Your task to perform on an android device: open app "VLC for Android" (install if not already installed) and enter user name: "Yves@outlook.com" and password: "internally" Image 0: 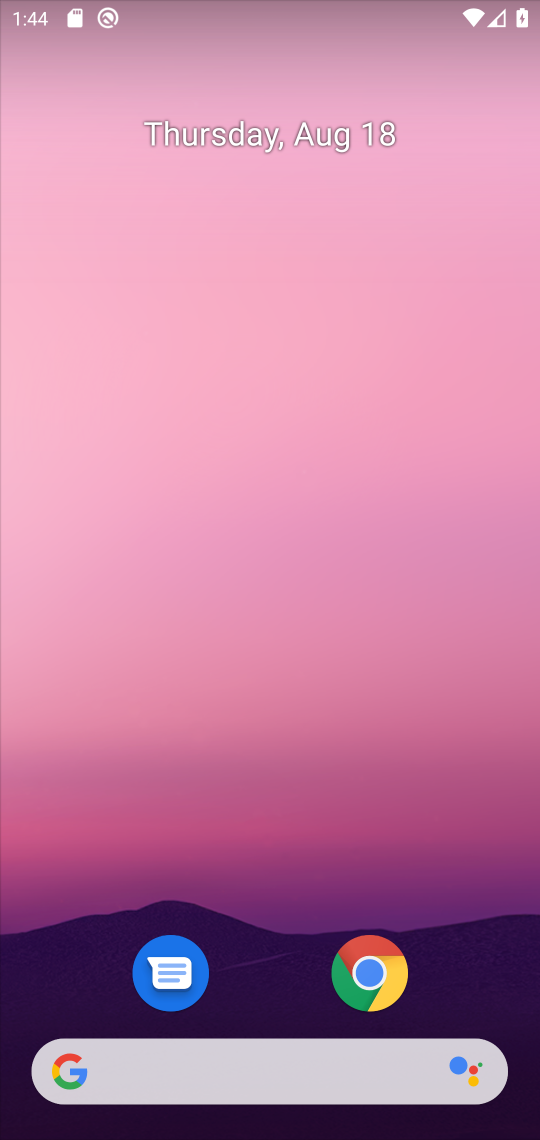
Step 0: click (226, 1083)
Your task to perform on an android device: open app "VLC for Android" (install if not already installed) and enter user name: "Yves@outlook.com" and password: "internally" Image 1: 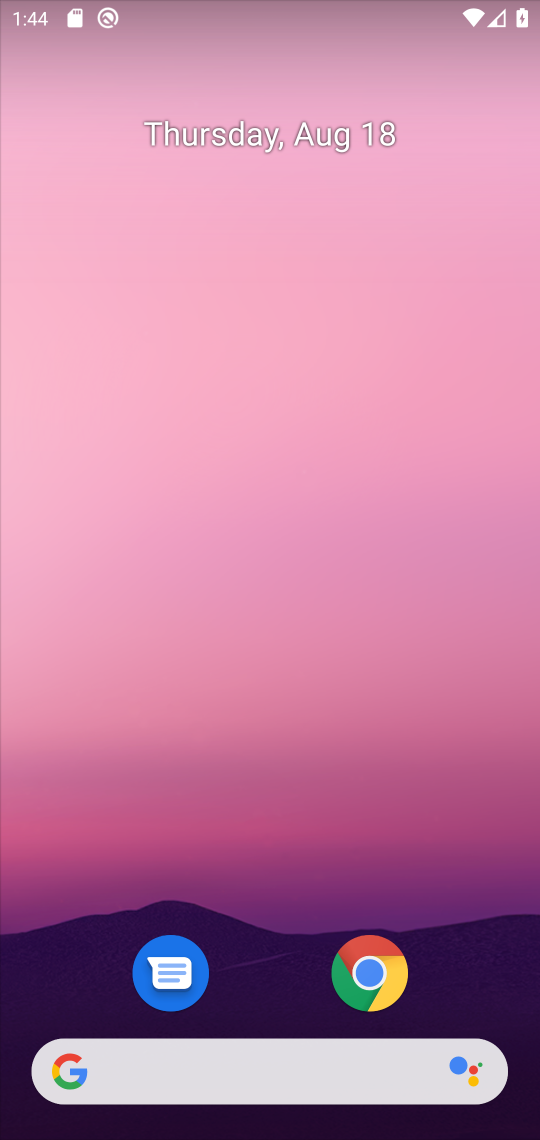
Step 1: drag from (268, 1022) to (392, 12)
Your task to perform on an android device: open app "VLC for Android" (install if not already installed) and enter user name: "Yves@outlook.com" and password: "internally" Image 2: 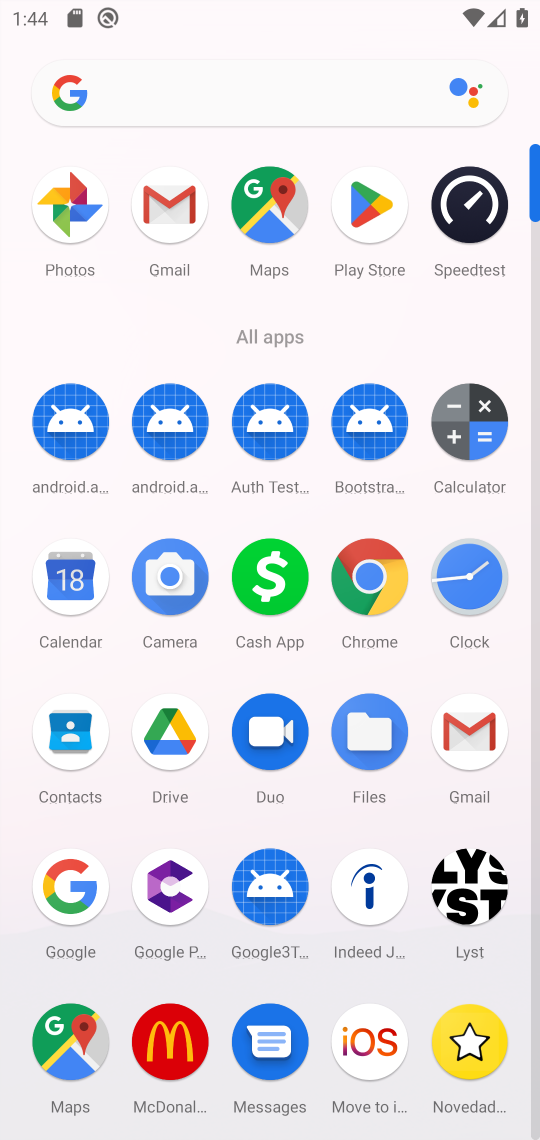
Step 2: click (384, 225)
Your task to perform on an android device: open app "VLC for Android" (install if not already installed) and enter user name: "Yves@outlook.com" and password: "internally" Image 3: 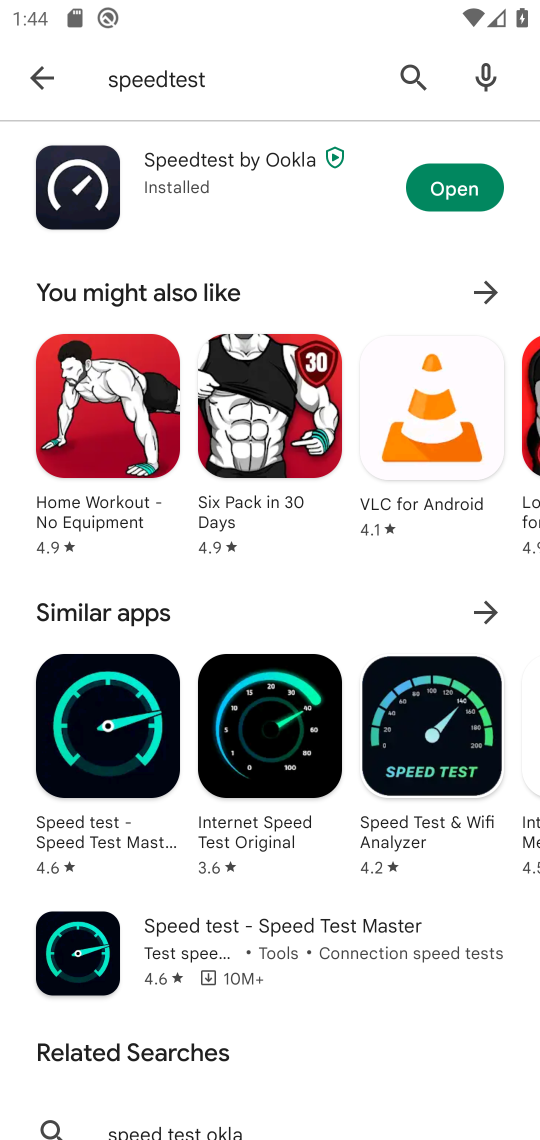
Step 3: click (406, 74)
Your task to perform on an android device: open app "VLC for Android" (install if not already installed) and enter user name: "Yves@outlook.com" and password: "internally" Image 4: 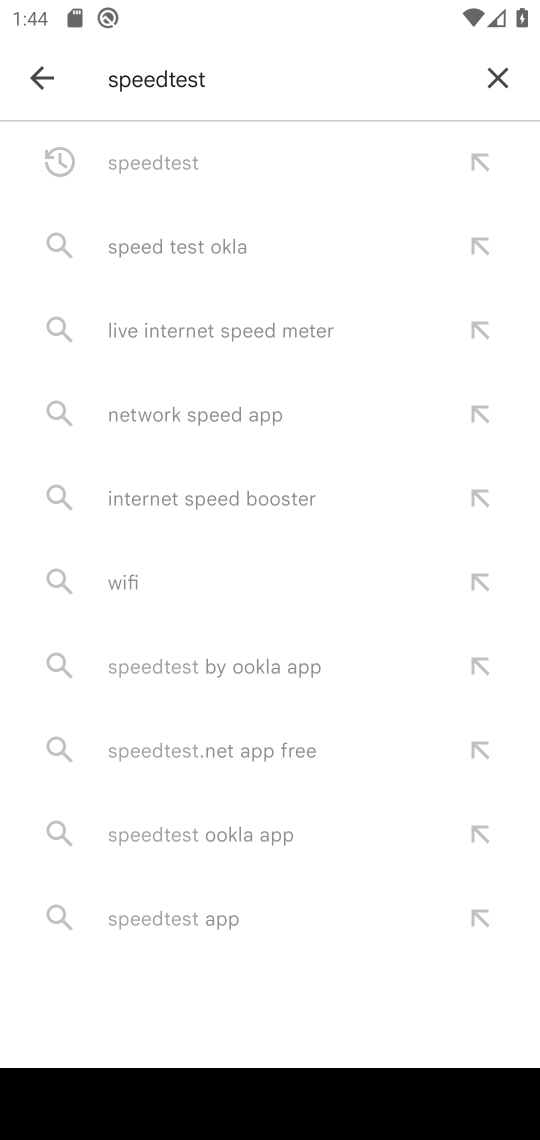
Step 4: click (502, 94)
Your task to perform on an android device: open app "VLC for Android" (install if not already installed) and enter user name: "Yves@outlook.com" and password: "internally" Image 5: 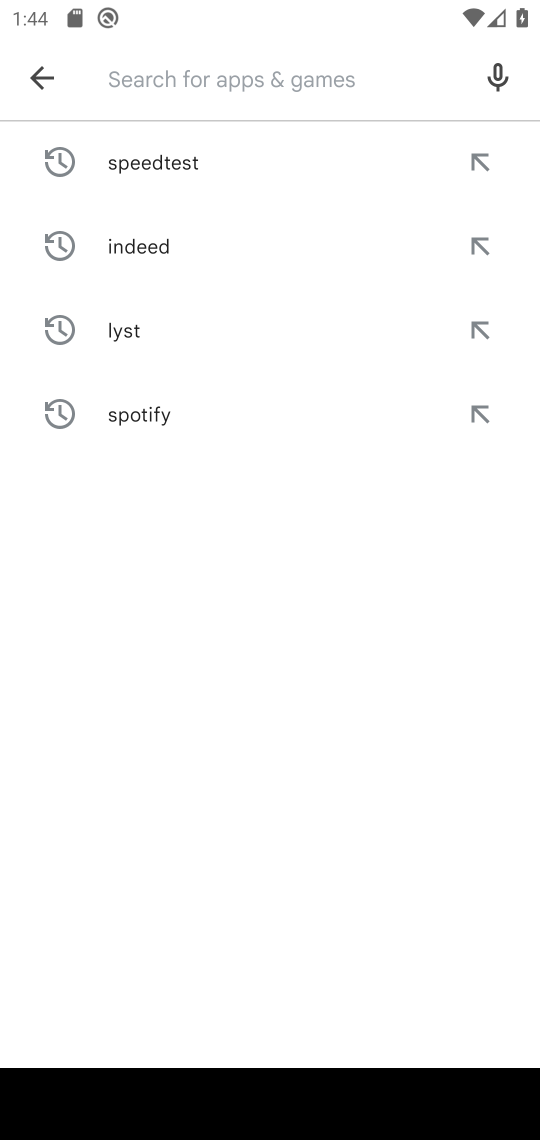
Step 5: type "vlc"
Your task to perform on an android device: open app "VLC for Android" (install if not already installed) and enter user name: "Yves@outlook.com" and password: "internally" Image 6: 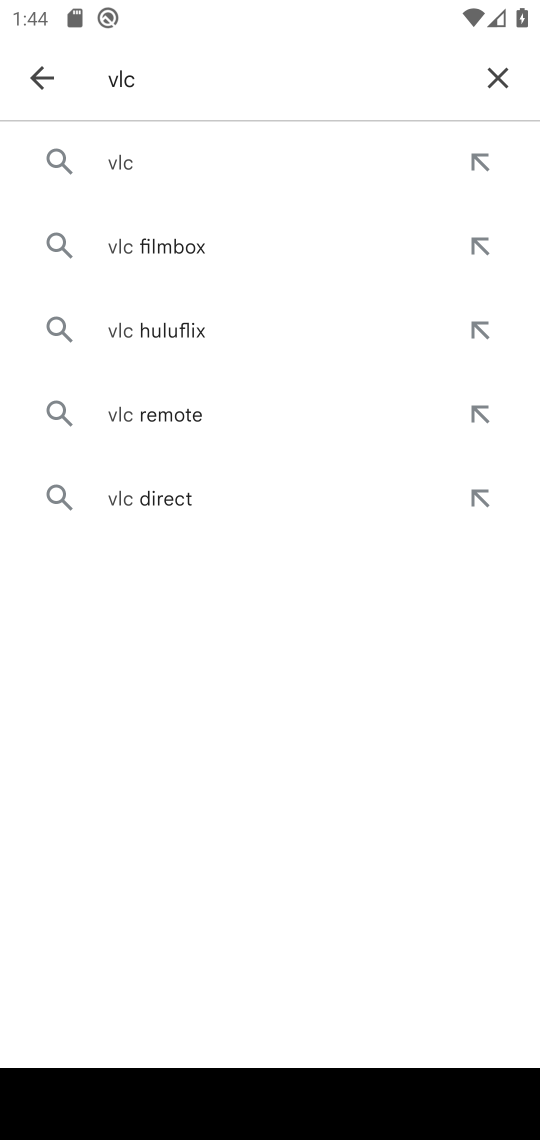
Step 6: click (352, 142)
Your task to perform on an android device: open app "VLC for Android" (install if not already installed) and enter user name: "Yves@outlook.com" and password: "internally" Image 7: 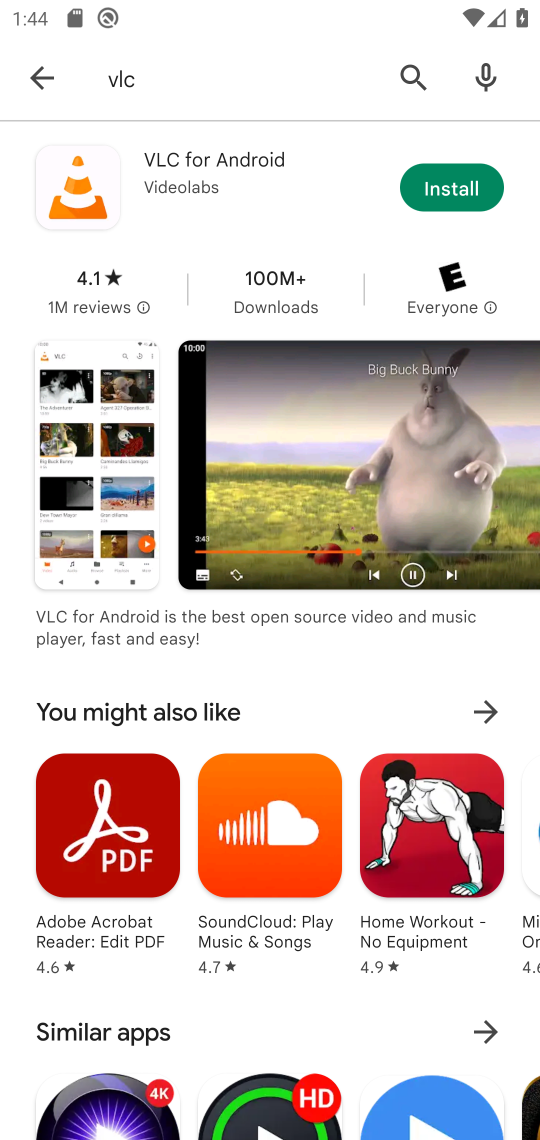
Step 7: click (485, 169)
Your task to perform on an android device: open app "VLC for Android" (install if not already installed) and enter user name: "Yves@outlook.com" and password: "internally" Image 8: 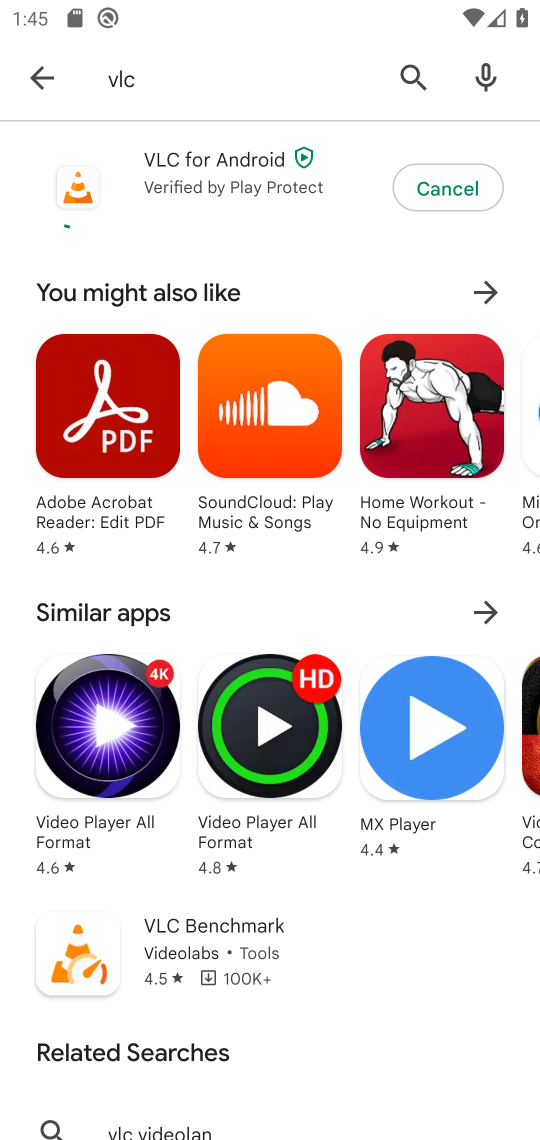
Step 8: task complete